Your task to perform on an android device: turn on sleep mode Image 0: 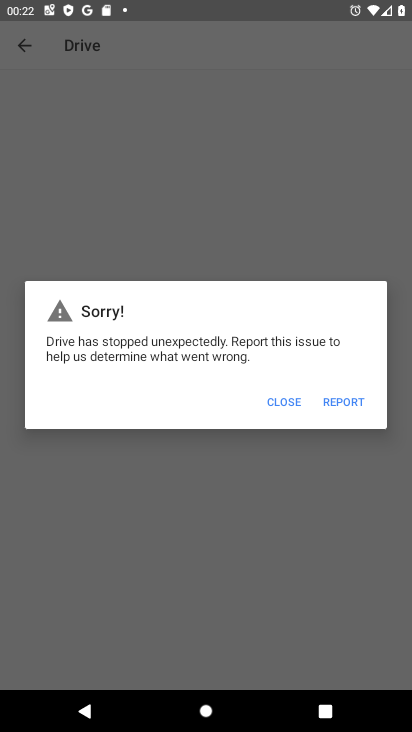
Step 0: press home button
Your task to perform on an android device: turn on sleep mode Image 1: 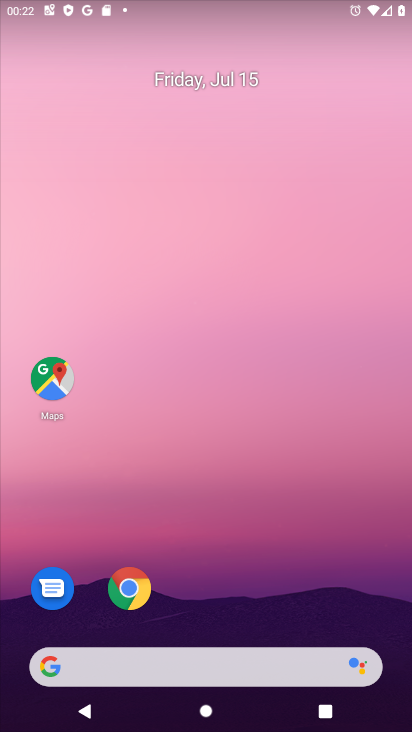
Step 1: drag from (152, 665) to (289, 145)
Your task to perform on an android device: turn on sleep mode Image 2: 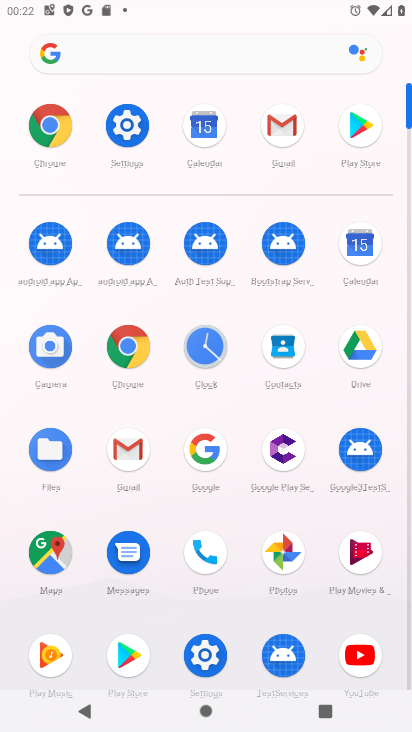
Step 2: click (118, 132)
Your task to perform on an android device: turn on sleep mode Image 3: 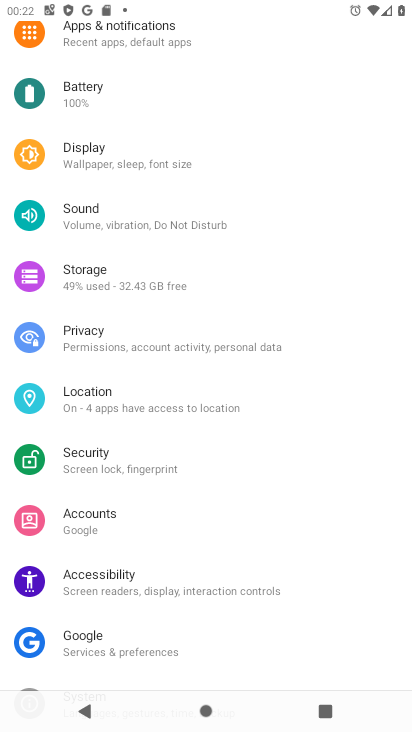
Step 3: click (128, 162)
Your task to perform on an android device: turn on sleep mode Image 4: 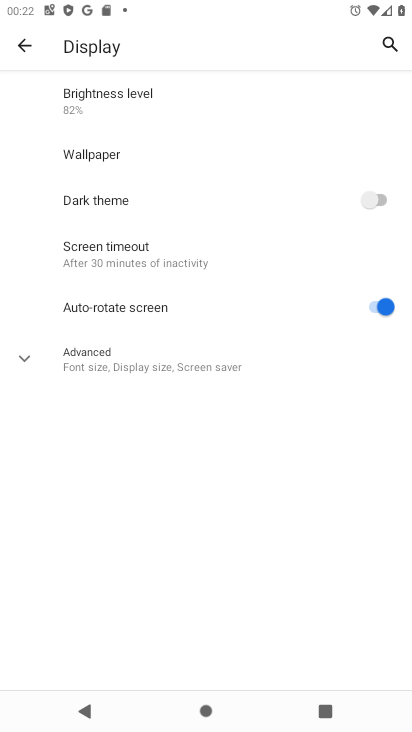
Step 4: task complete